Your task to perform on an android device: How do I get to the nearest Nordstrom? Image 0: 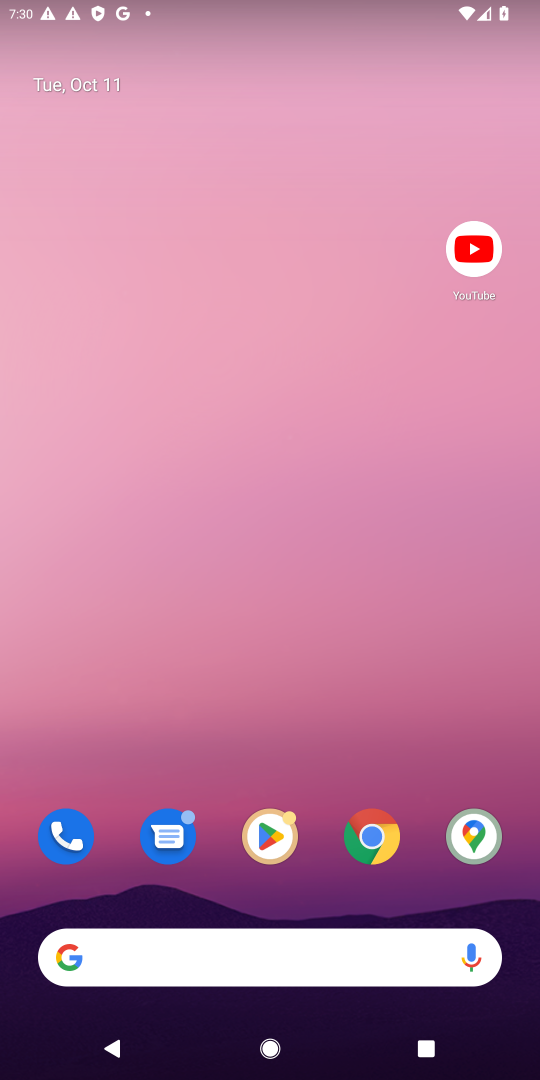
Step 0: click (371, 830)
Your task to perform on an android device: How do I get to the nearest Nordstrom? Image 1: 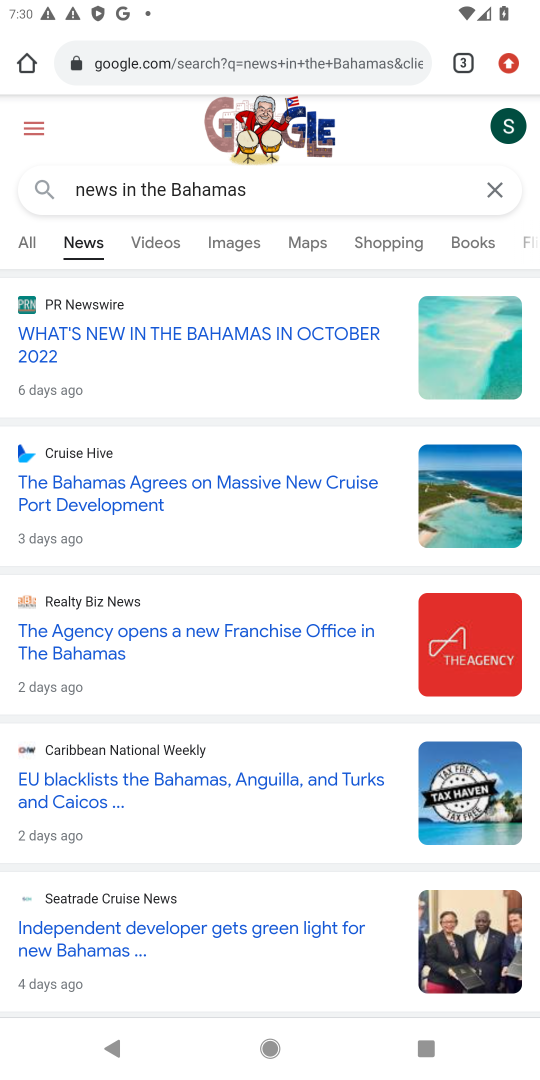
Step 1: click (256, 58)
Your task to perform on an android device: How do I get to the nearest Nordstrom? Image 2: 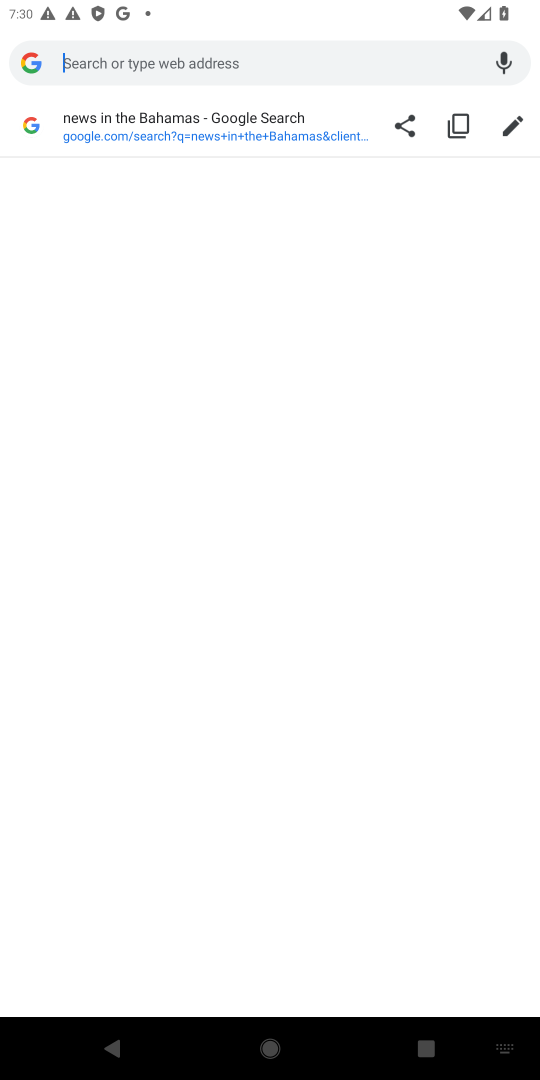
Step 2: type "How do I get to the nearest Nordstrom"
Your task to perform on an android device: How do I get to the nearest Nordstrom? Image 3: 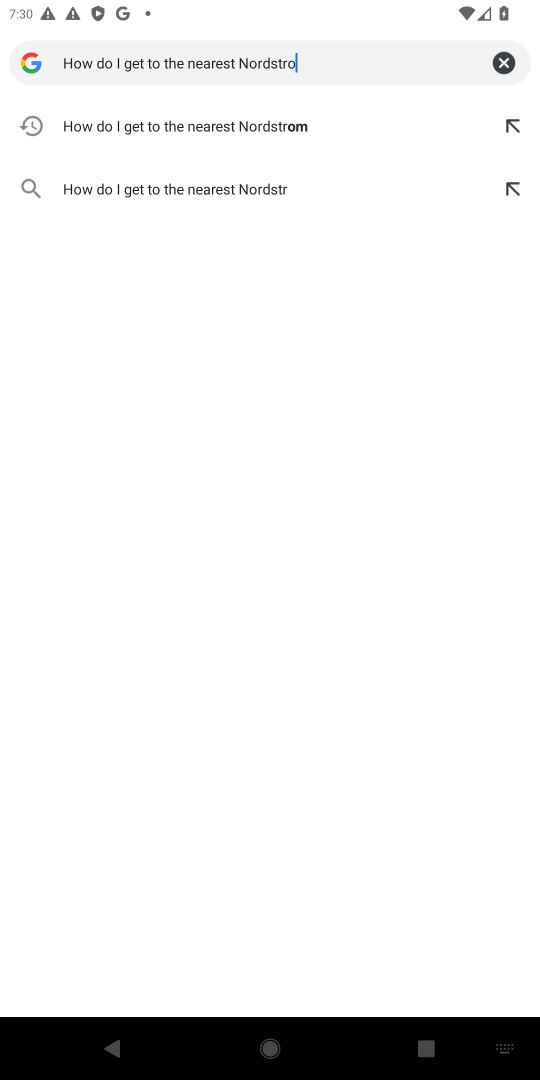
Step 3: press enter
Your task to perform on an android device: How do I get to the nearest Nordstrom? Image 4: 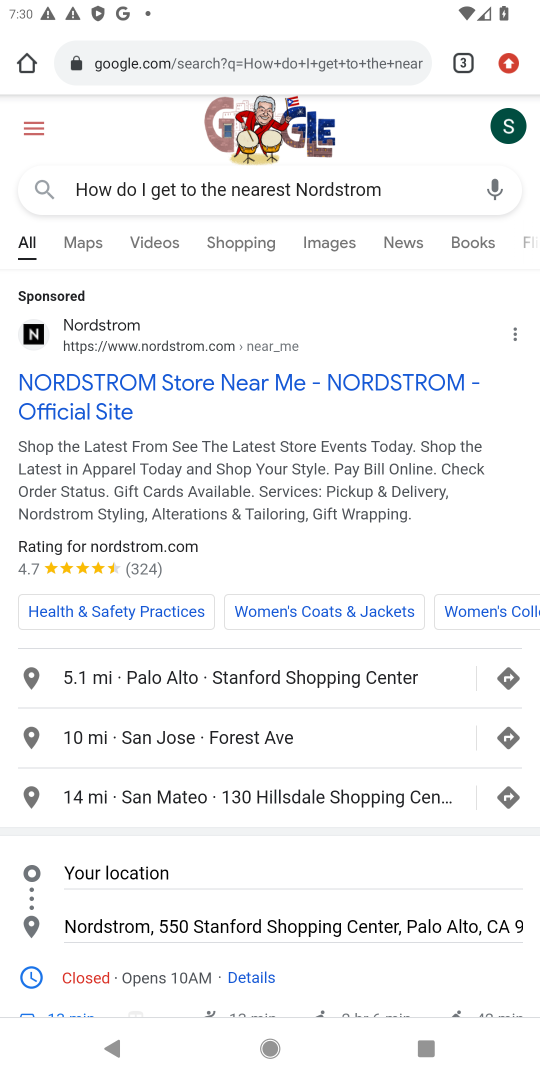
Step 4: task complete